Your task to perform on an android device: uninstall "LinkedIn" Image 0: 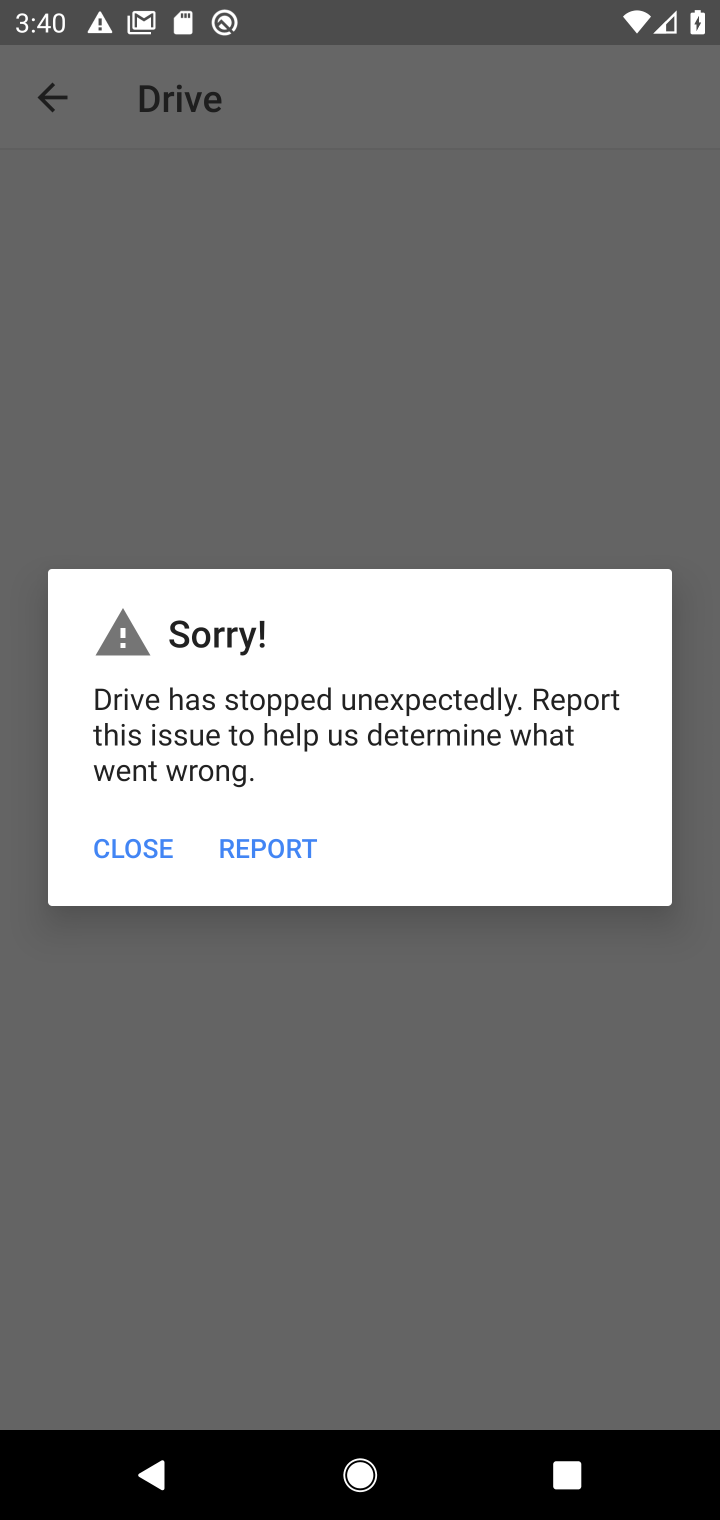
Step 0: press home button
Your task to perform on an android device: uninstall "LinkedIn" Image 1: 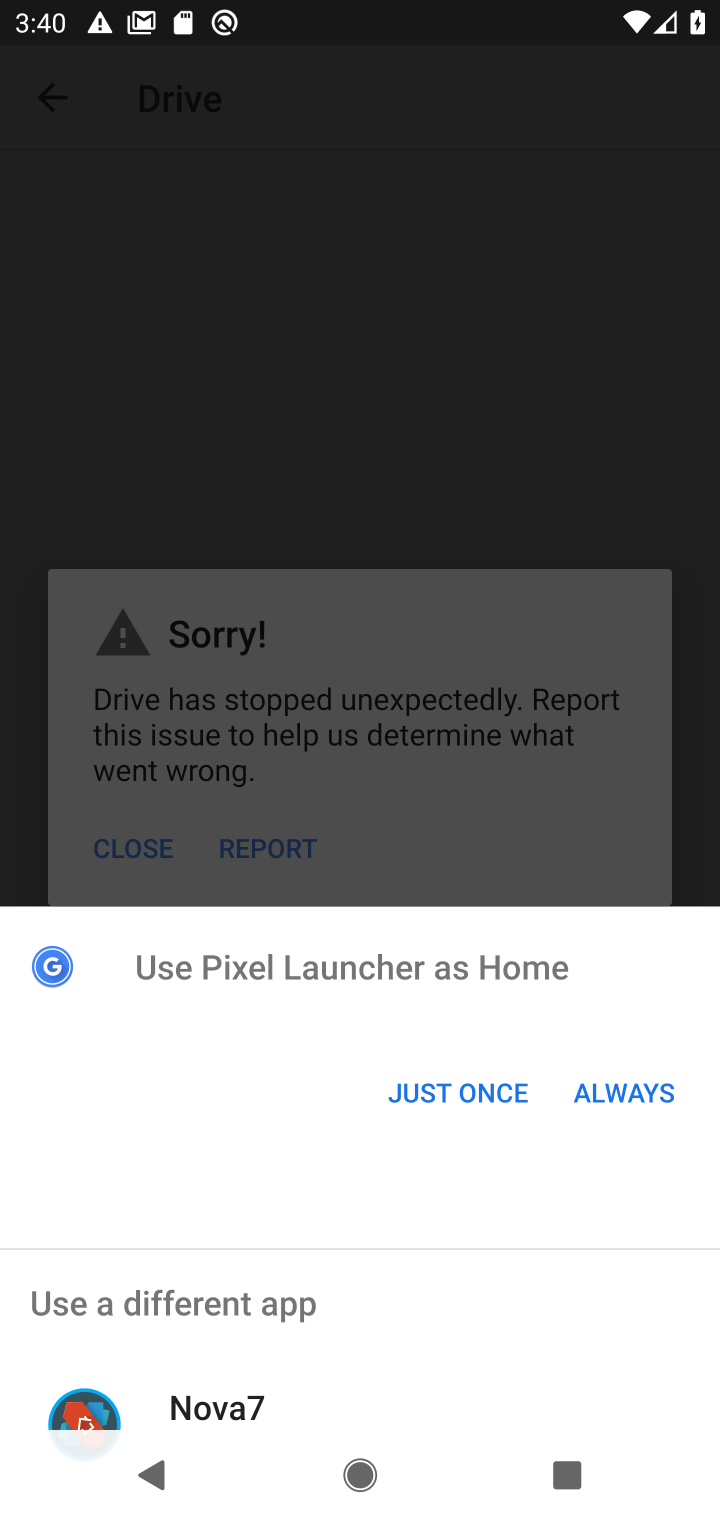
Step 1: click (497, 1066)
Your task to perform on an android device: uninstall "LinkedIn" Image 2: 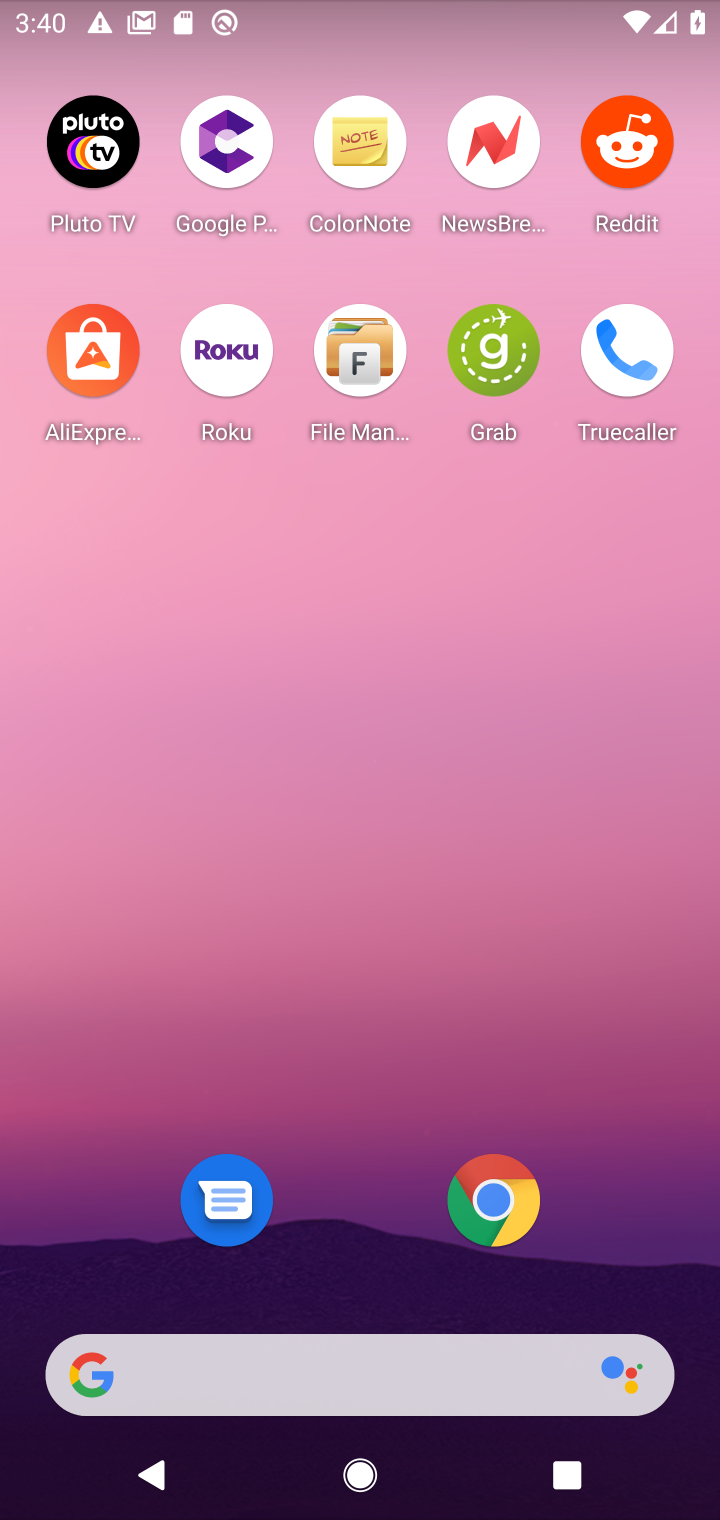
Step 2: drag from (347, 76) to (456, 0)
Your task to perform on an android device: uninstall "LinkedIn" Image 3: 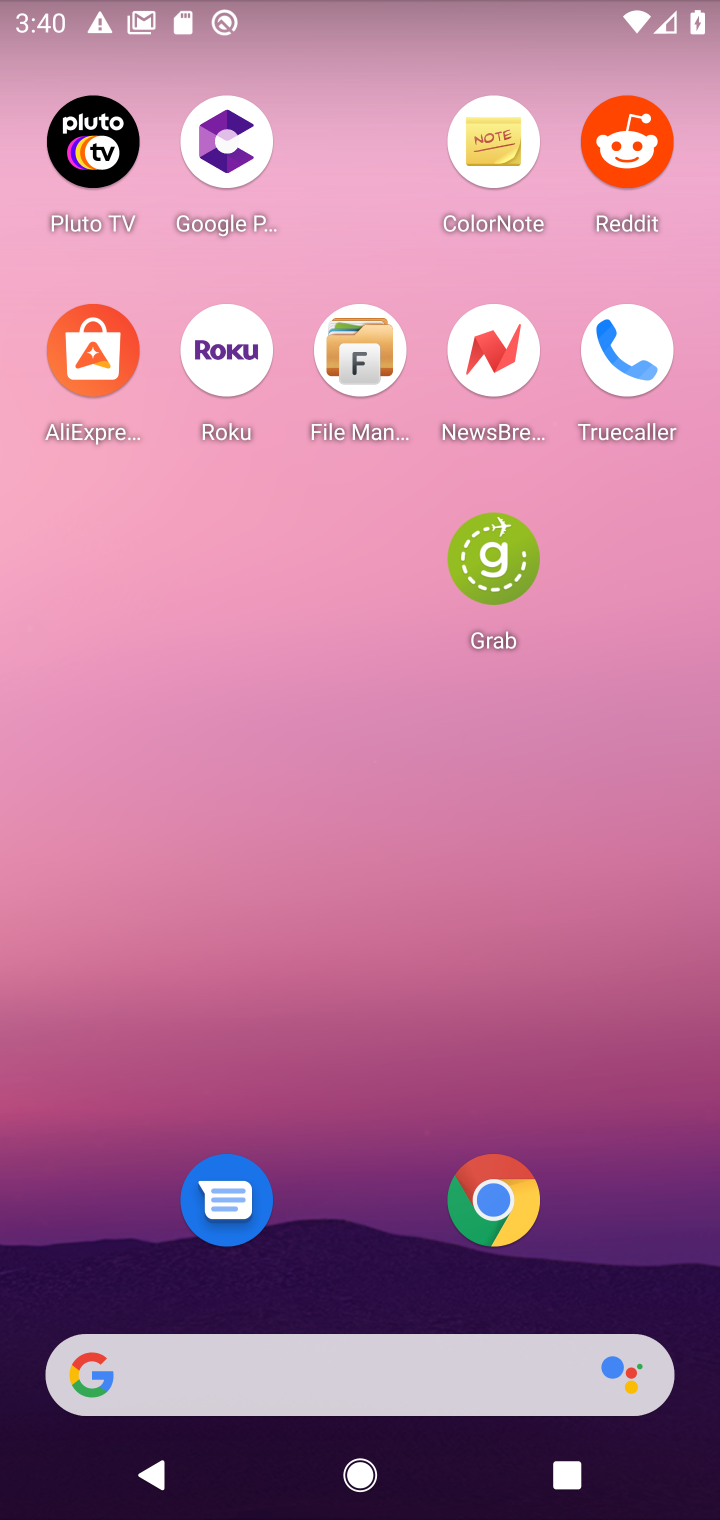
Step 3: drag from (321, 1162) to (375, 206)
Your task to perform on an android device: uninstall "LinkedIn" Image 4: 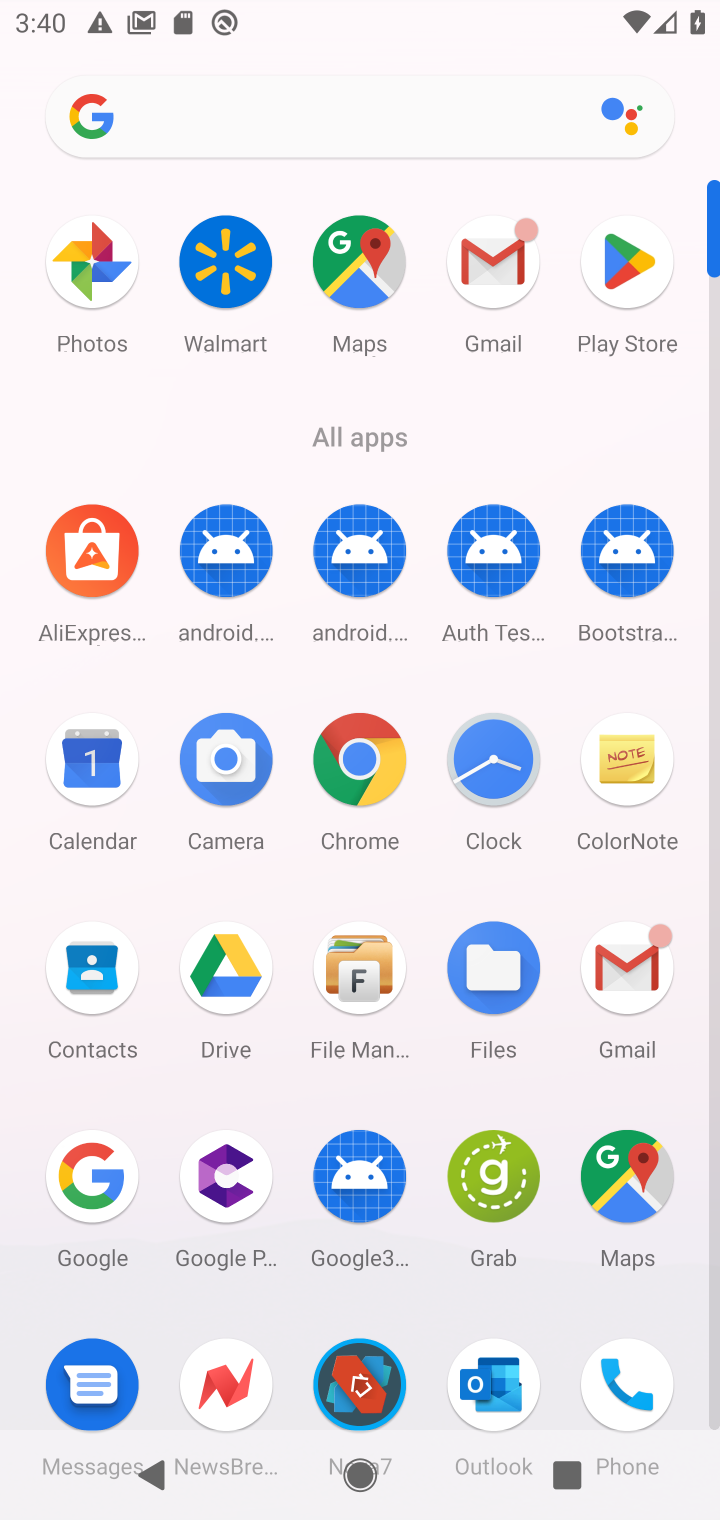
Step 4: click (634, 303)
Your task to perform on an android device: uninstall "LinkedIn" Image 5: 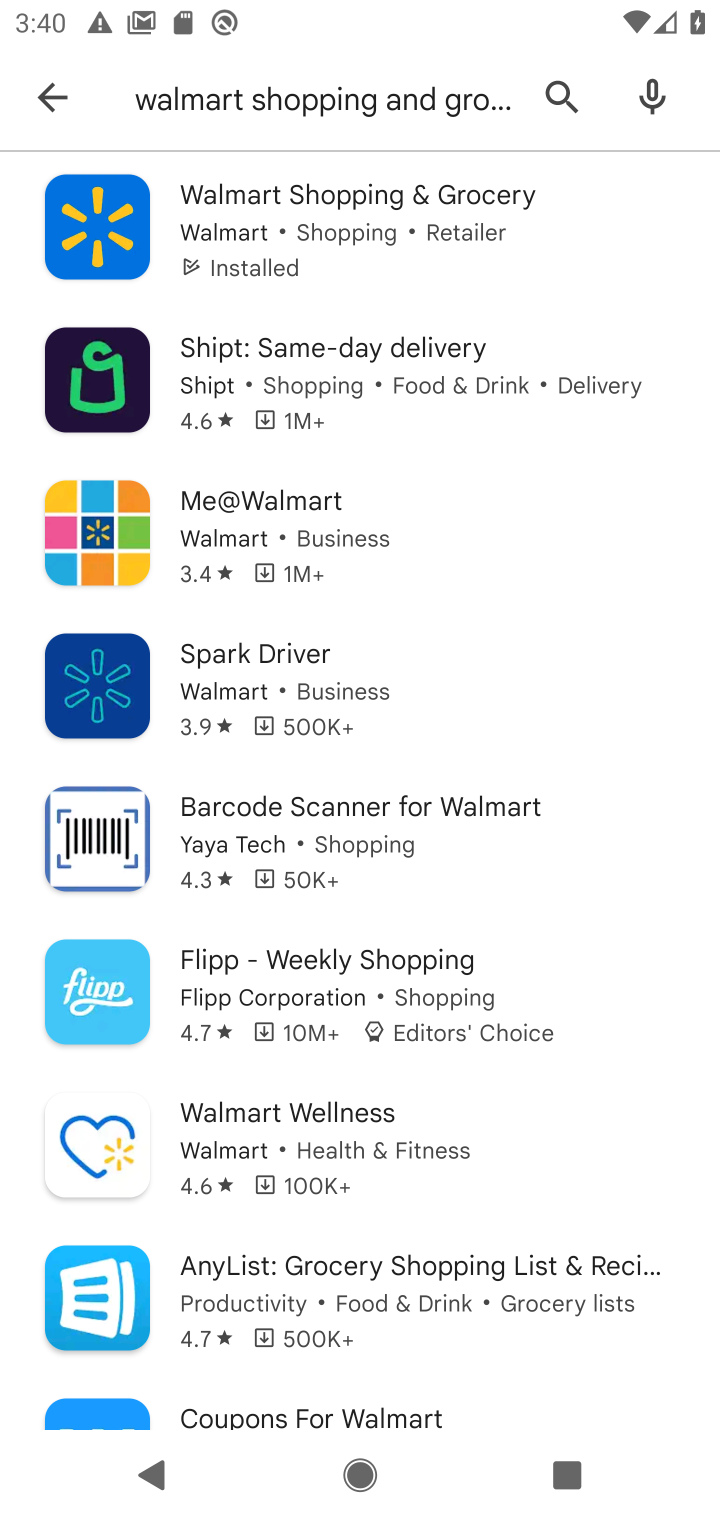
Step 5: click (50, 100)
Your task to perform on an android device: uninstall "LinkedIn" Image 6: 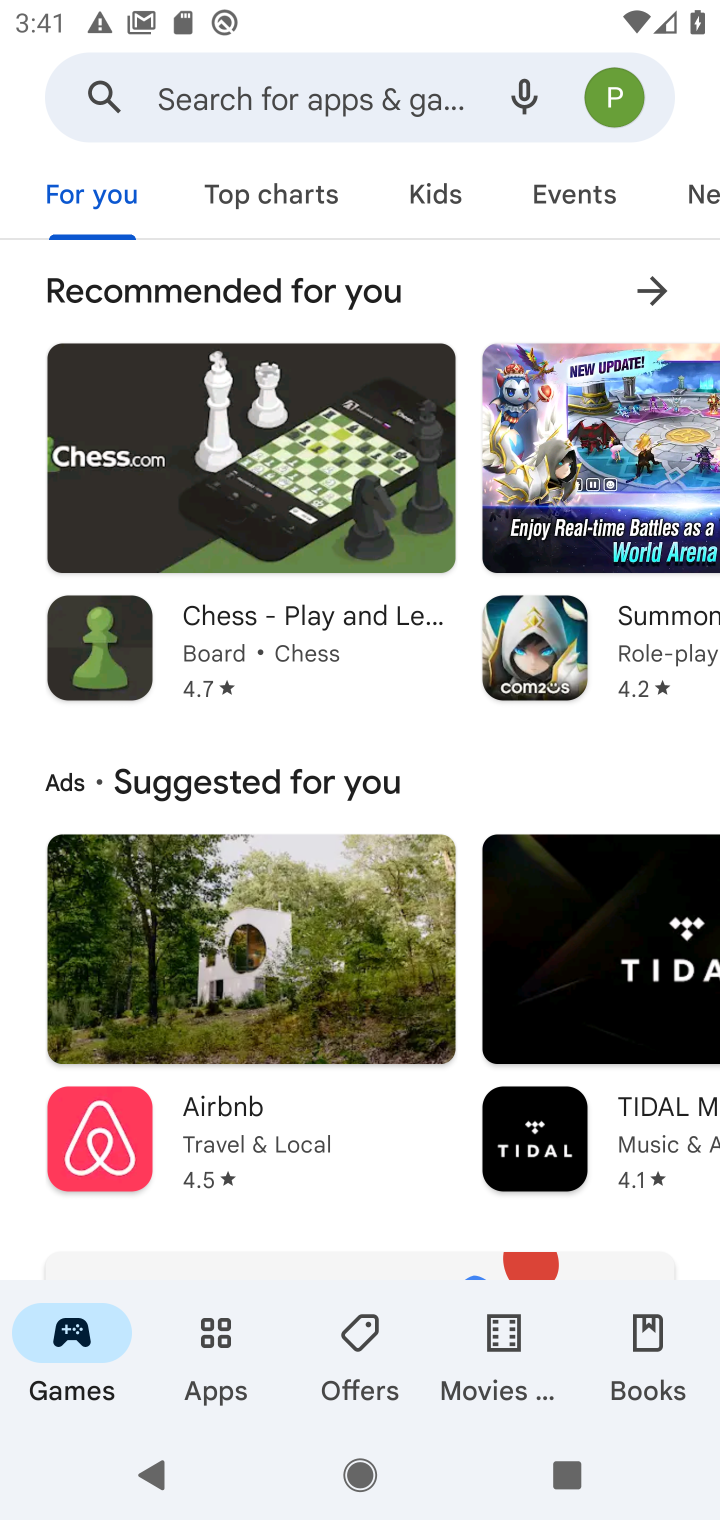
Step 6: click (309, 90)
Your task to perform on an android device: uninstall "LinkedIn" Image 7: 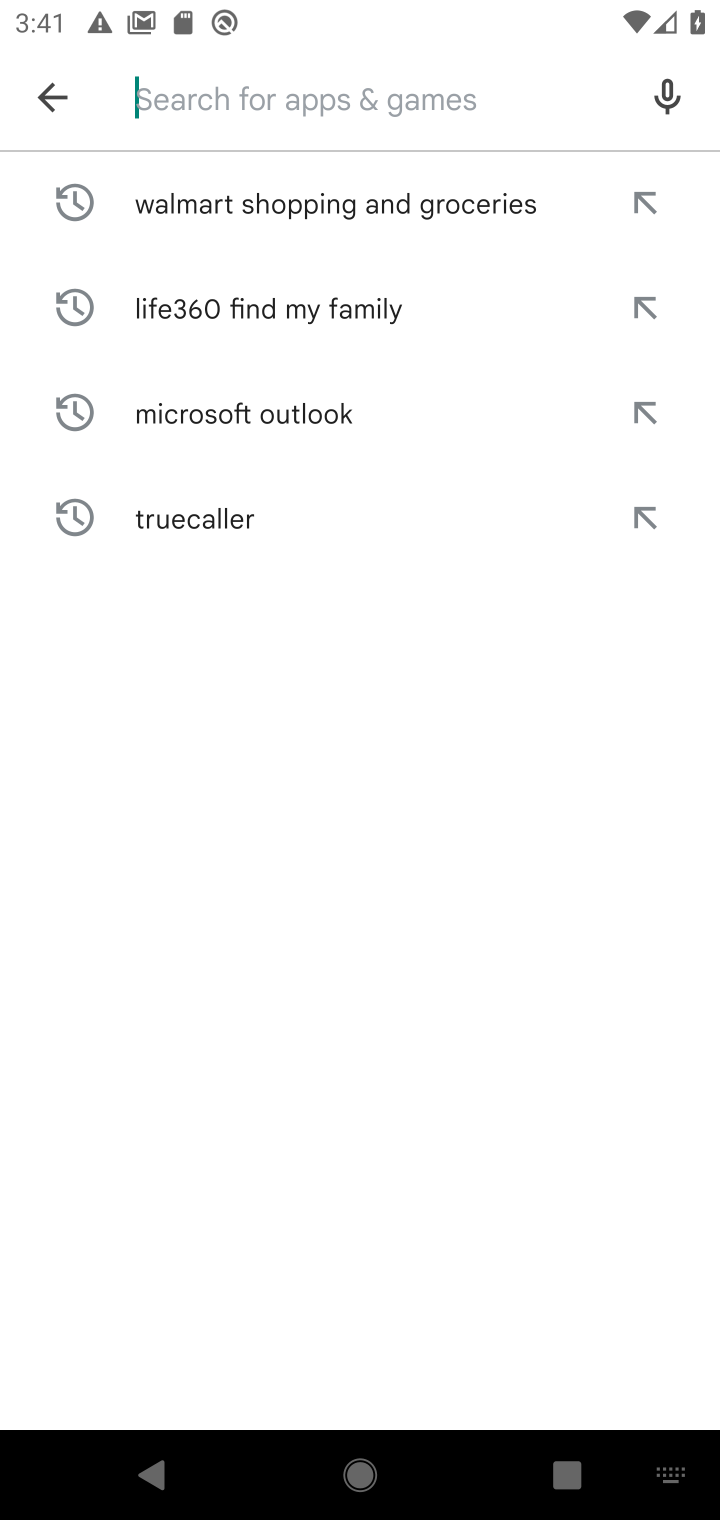
Step 7: type "linkedin"
Your task to perform on an android device: uninstall "LinkedIn" Image 8: 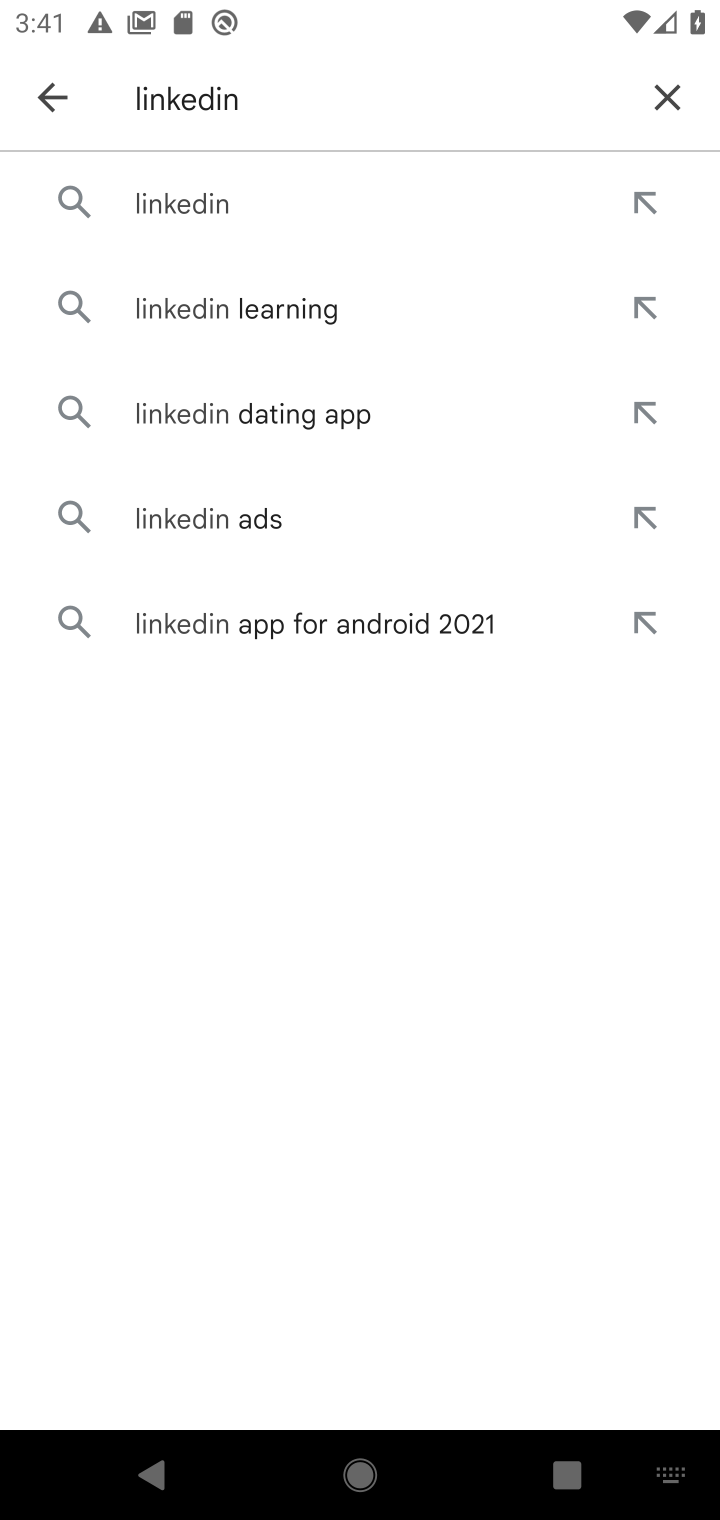
Step 8: click (210, 196)
Your task to perform on an android device: uninstall "LinkedIn" Image 9: 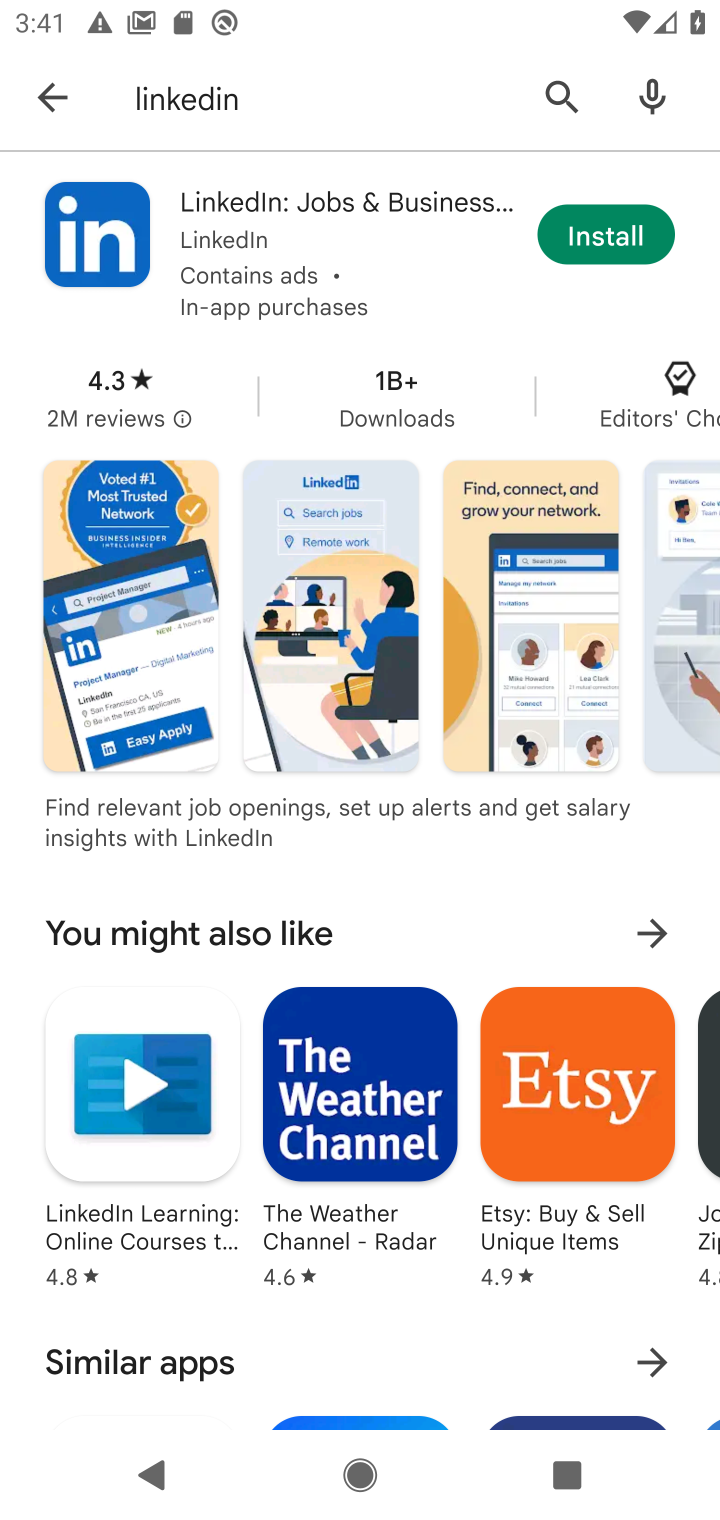
Step 9: task complete